Your task to perform on an android device: find which apps use the phone's location Image 0: 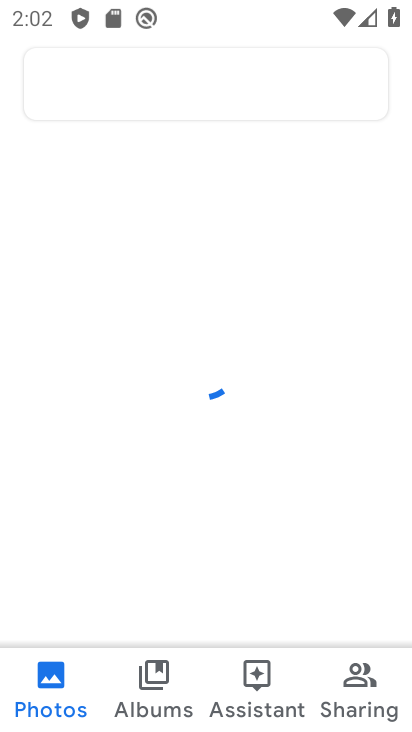
Step 0: press home button
Your task to perform on an android device: find which apps use the phone's location Image 1: 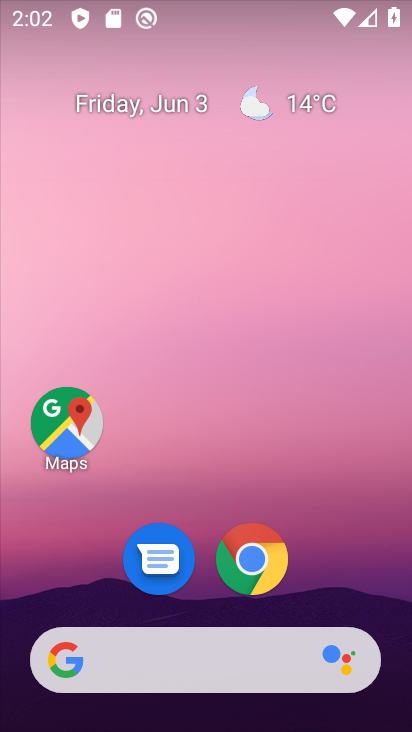
Step 1: drag from (201, 515) to (146, 67)
Your task to perform on an android device: find which apps use the phone's location Image 2: 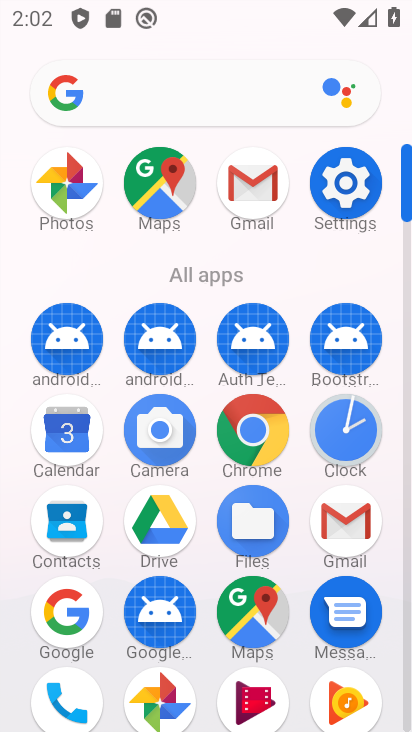
Step 2: click (329, 197)
Your task to perform on an android device: find which apps use the phone's location Image 3: 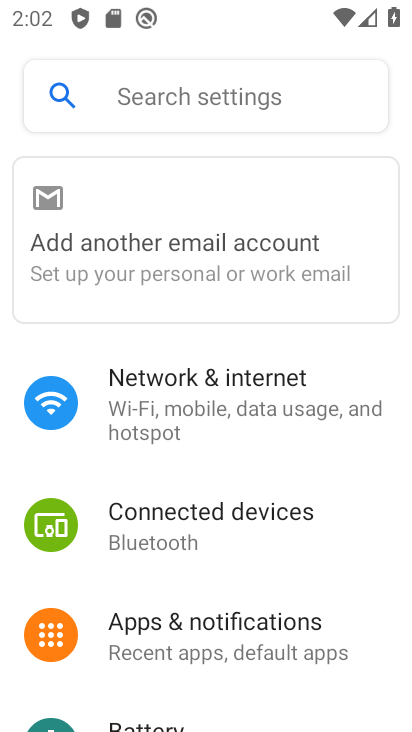
Step 3: drag from (242, 635) to (221, 139)
Your task to perform on an android device: find which apps use the phone's location Image 4: 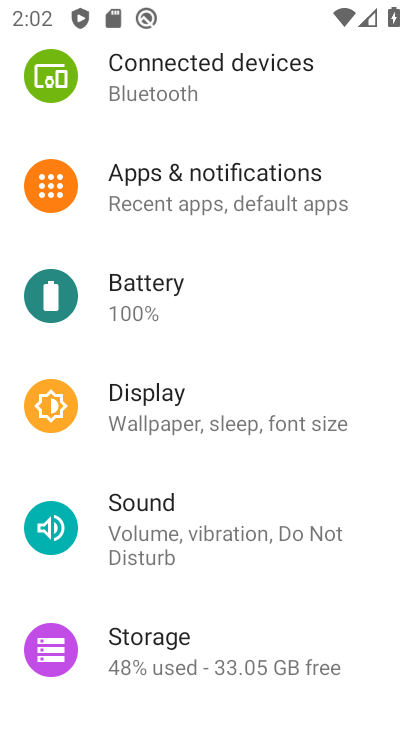
Step 4: drag from (149, 563) to (108, 152)
Your task to perform on an android device: find which apps use the phone's location Image 5: 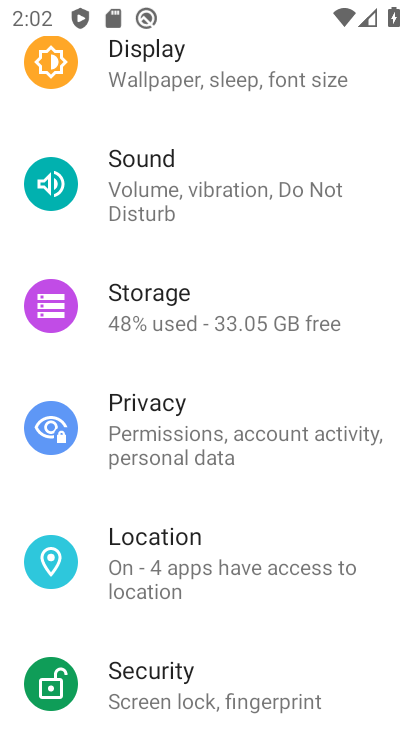
Step 5: click (177, 569)
Your task to perform on an android device: find which apps use the phone's location Image 6: 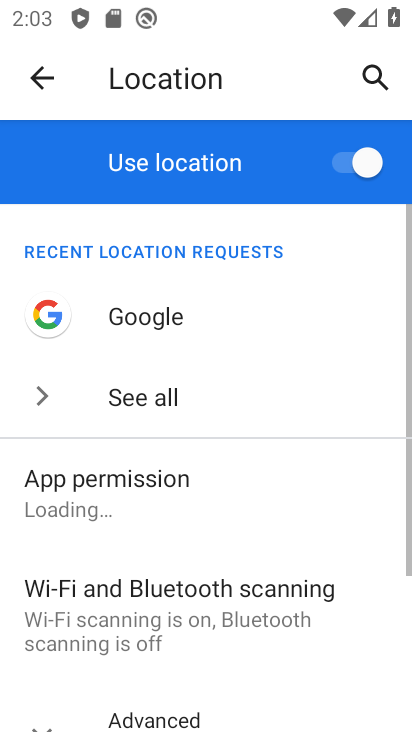
Step 6: click (168, 487)
Your task to perform on an android device: find which apps use the phone's location Image 7: 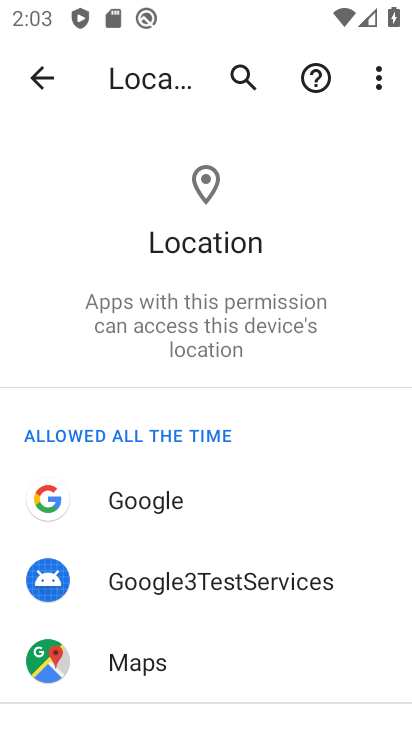
Step 7: task complete